Your task to perform on an android device: make emails show in primary in the gmail app Image 0: 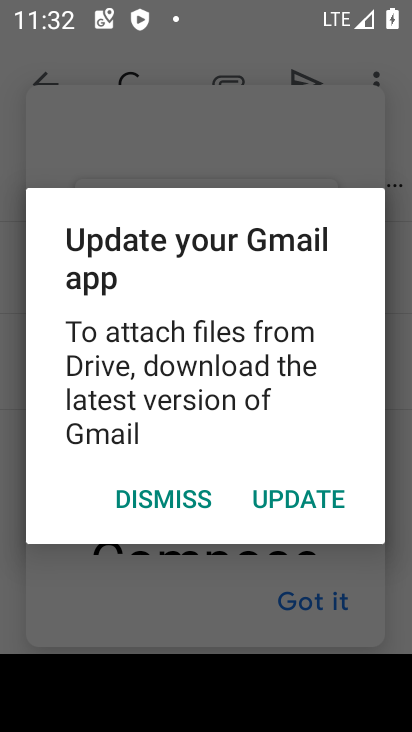
Step 0: press home button
Your task to perform on an android device: make emails show in primary in the gmail app Image 1: 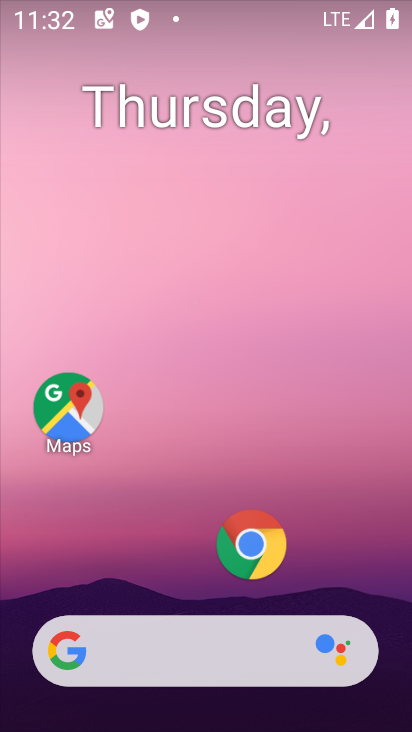
Step 1: drag from (201, 597) to (230, 25)
Your task to perform on an android device: make emails show in primary in the gmail app Image 2: 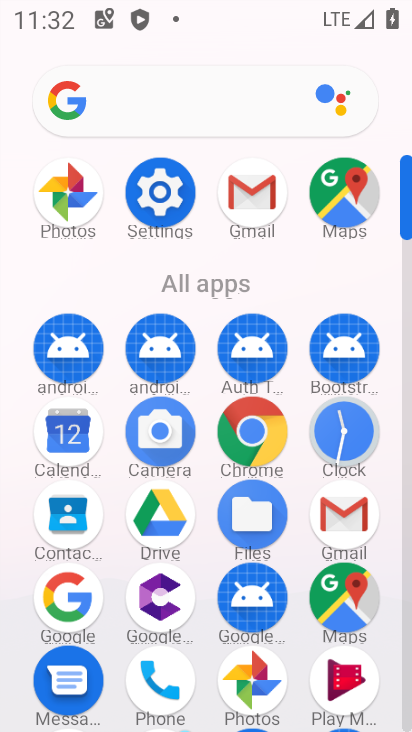
Step 2: click (353, 531)
Your task to perform on an android device: make emails show in primary in the gmail app Image 3: 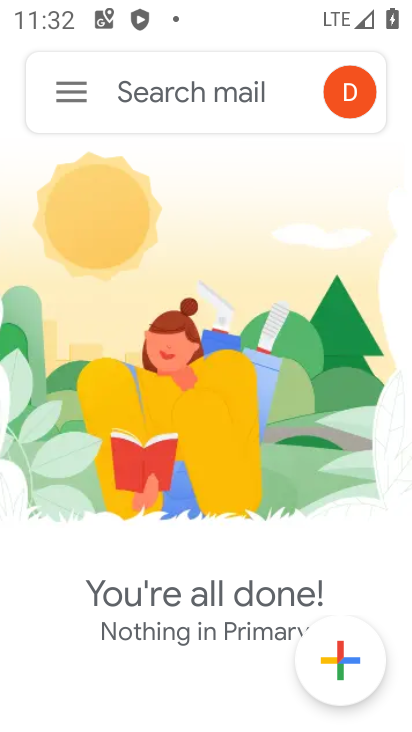
Step 3: task complete